Your task to perform on an android device: Open Maps and search for coffee Image 0: 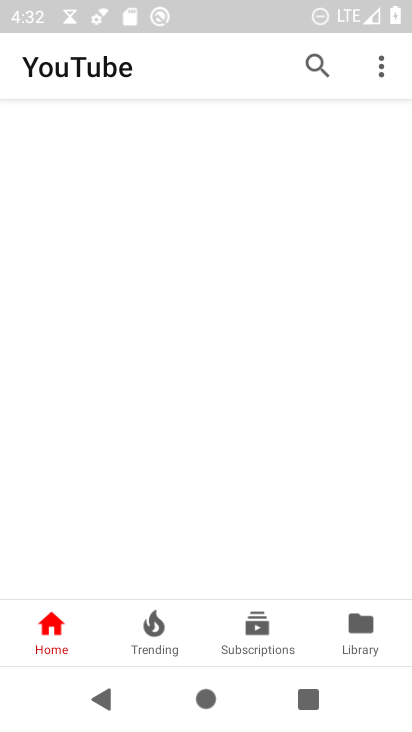
Step 0: drag from (326, 552) to (335, 257)
Your task to perform on an android device: Open Maps and search for coffee Image 1: 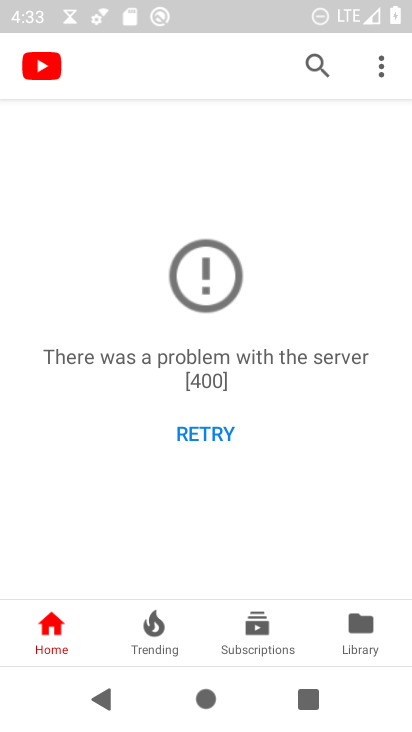
Step 1: press back button
Your task to perform on an android device: Open Maps and search for coffee Image 2: 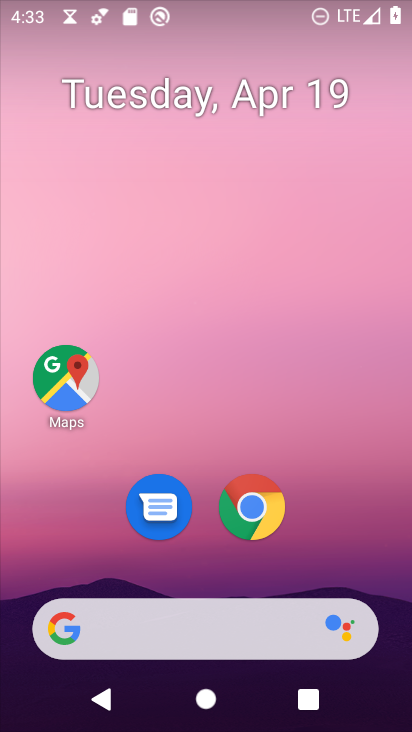
Step 2: click (58, 382)
Your task to perform on an android device: Open Maps and search for coffee Image 3: 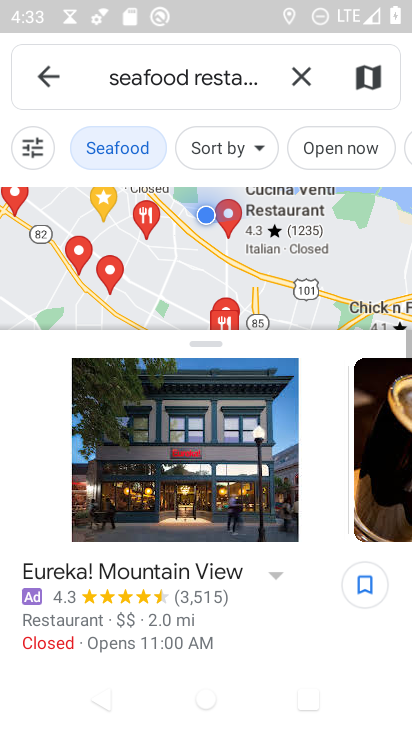
Step 3: click (289, 74)
Your task to perform on an android device: Open Maps and search for coffee Image 4: 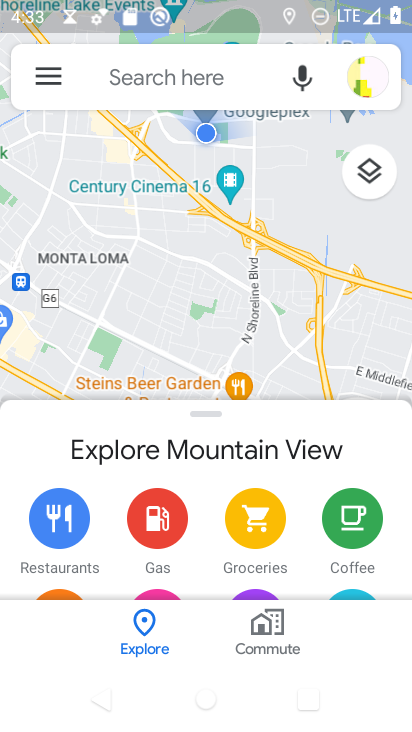
Step 4: click (136, 66)
Your task to perform on an android device: Open Maps and search for coffee Image 5: 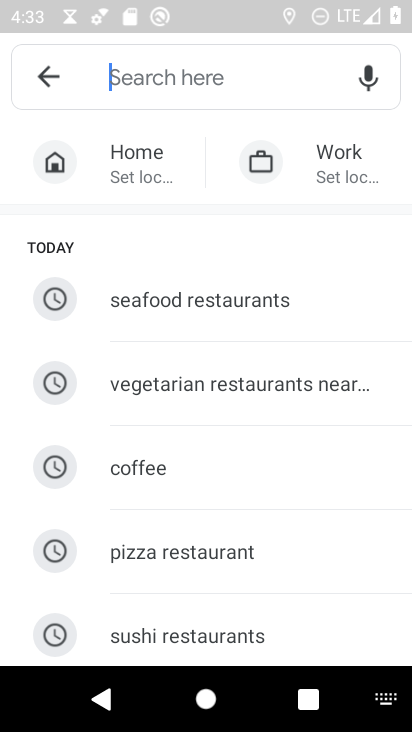
Step 5: type "coffee"
Your task to perform on an android device: Open Maps and search for coffee Image 6: 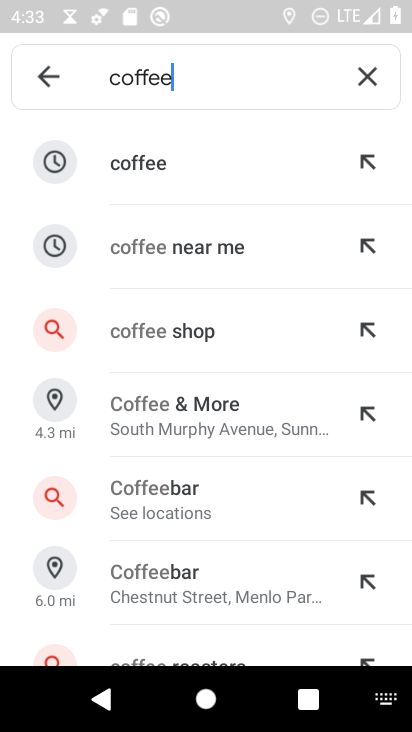
Step 6: click (156, 153)
Your task to perform on an android device: Open Maps and search for coffee Image 7: 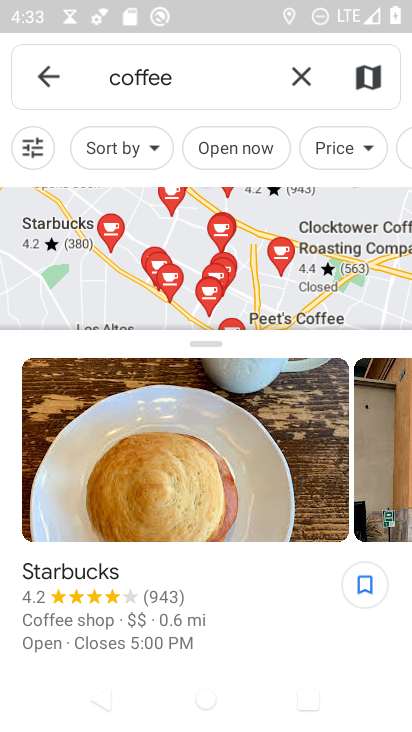
Step 7: task complete